Your task to perform on an android device: Open Google Maps Image 0: 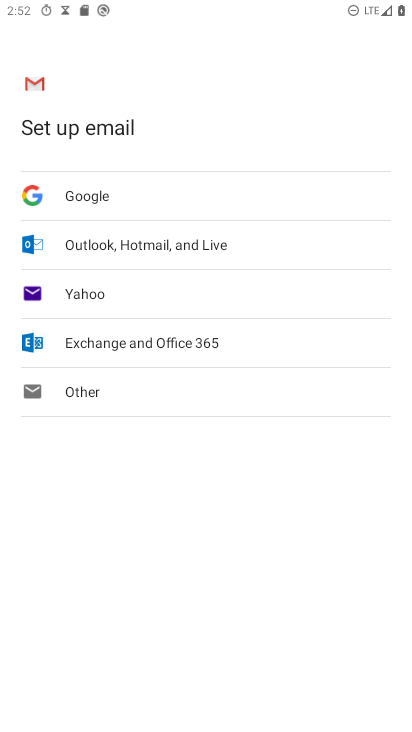
Step 0: press home button
Your task to perform on an android device: Open Google Maps Image 1: 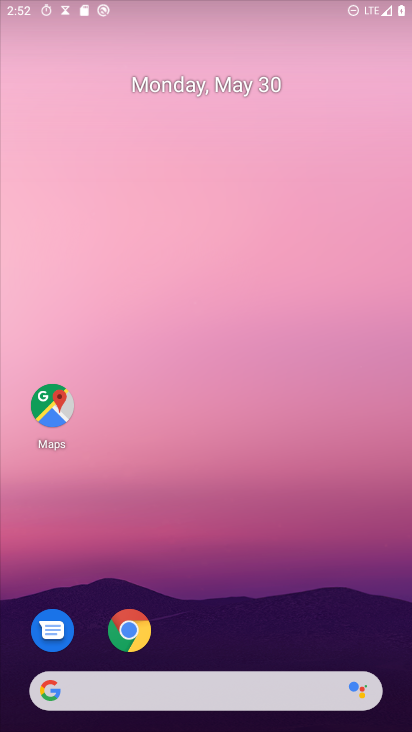
Step 1: drag from (234, 698) to (218, 197)
Your task to perform on an android device: Open Google Maps Image 2: 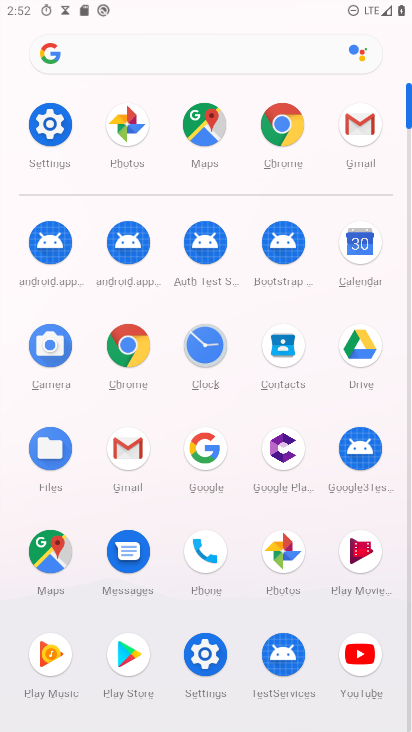
Step 2: click (188, 133)
Your task to perform on an android device: Open Google Maps Image 3: 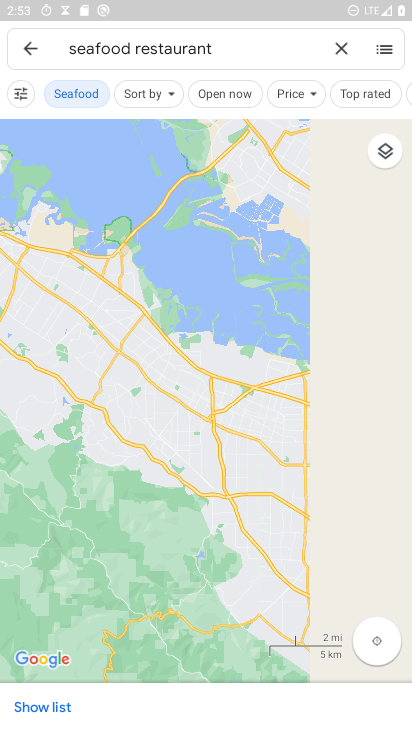
Step 3: click (31, 56)
Your task to perform on an android device: Open Google Maps Image 4: 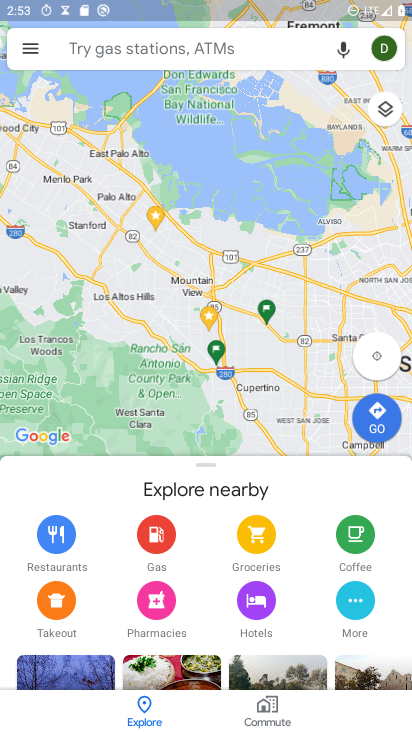
Step 4: click (369, 358)
Your task to perform on an android device: Open Google Maps Image 5: 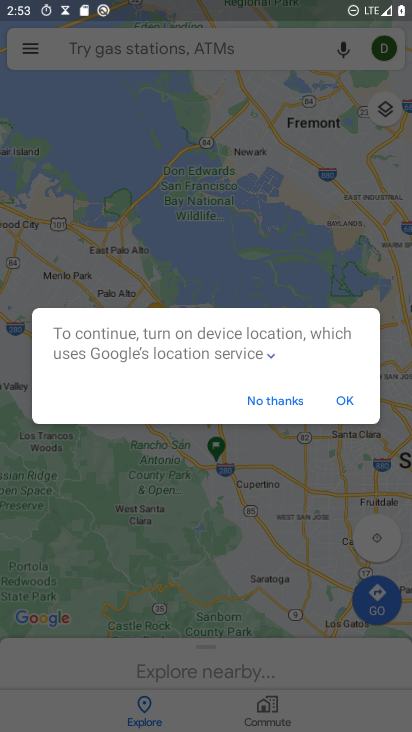
Step 5: task complete